Your task to perform on an android device: Open sound settings Image 0: 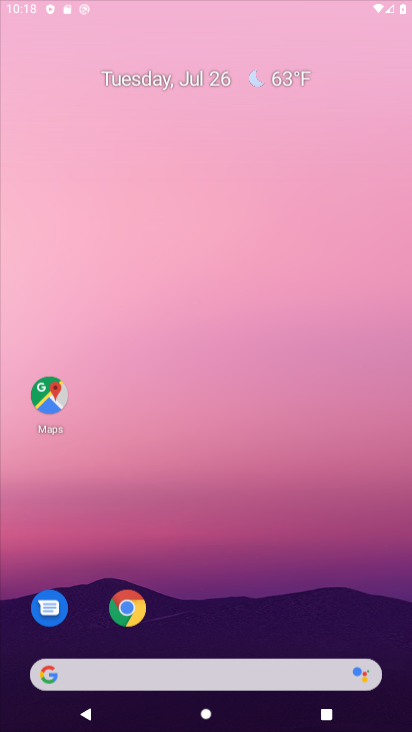
Step 0: press home button
Your task to perform on an android device: Open sound settings Image 1: 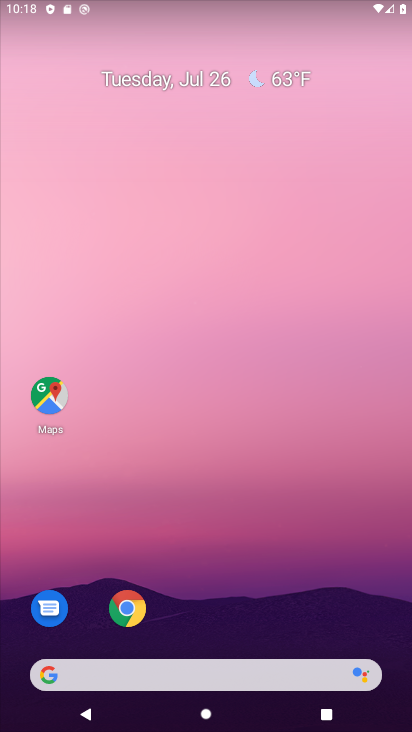
Step 1: press home button
Your task to perform on an android device: Open sound settings Image 2: 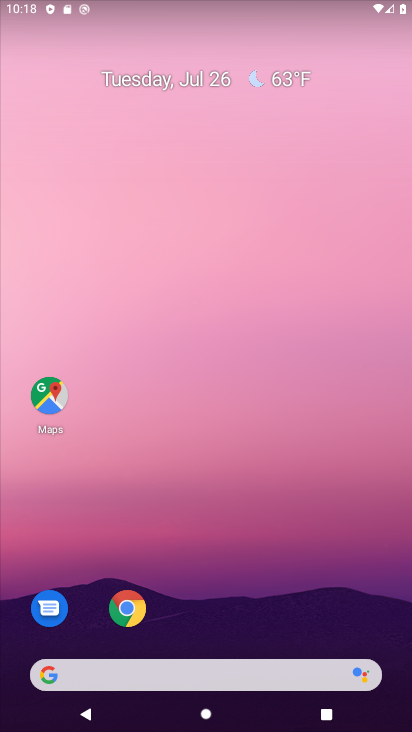
Step 2: drag from (286, 601) to (217, 149)
Your task to perform on an android device: Open sound settings Image 3: 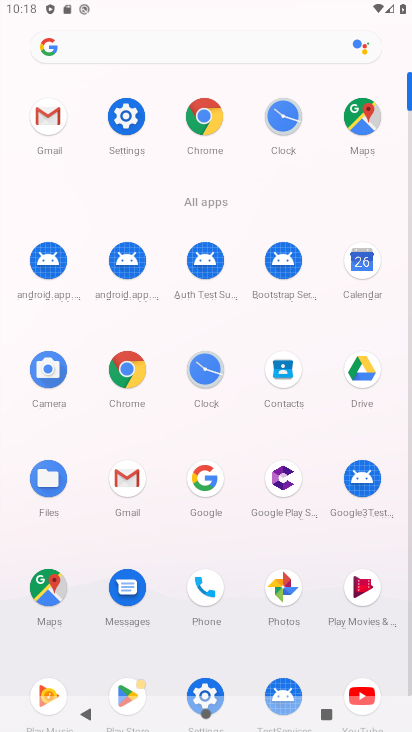
Step 3: click (130, 114)
Your task to perform on an android device: Open sound settings Image 4: 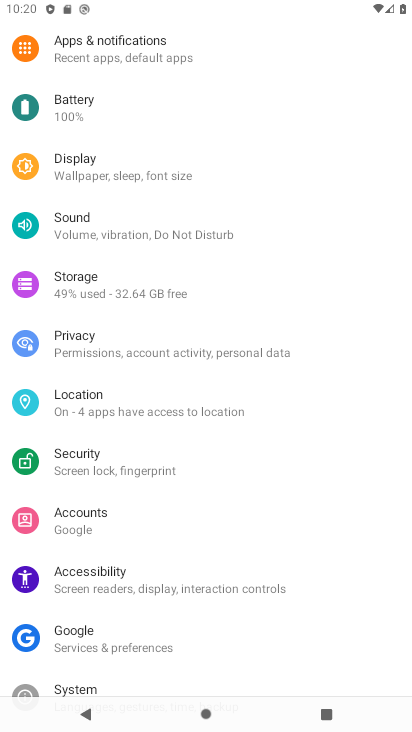
Step 4: press home button
Your task to perform on an android device: Open sound settings Image 5: 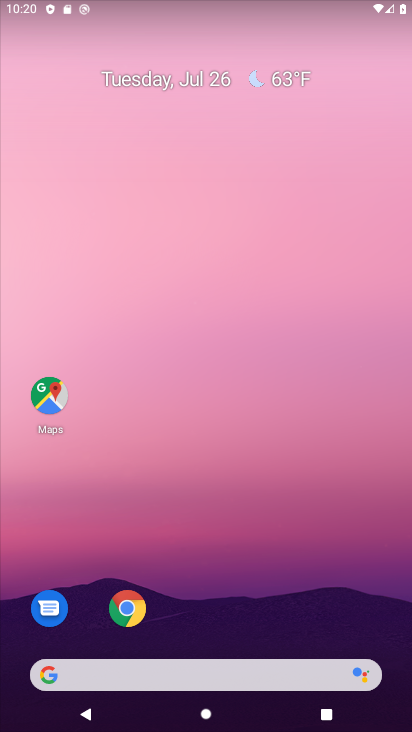
Step 5: drag from (239, 465) to (245, 82)
Your task to perform on an android device: Open sound settings Image 6: 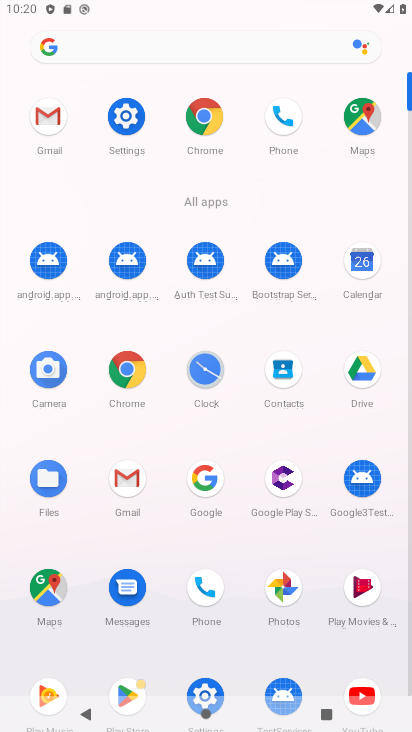
Step 6: click (133, 118)
Your task to perform on an android device: Open sound settings Image 7: 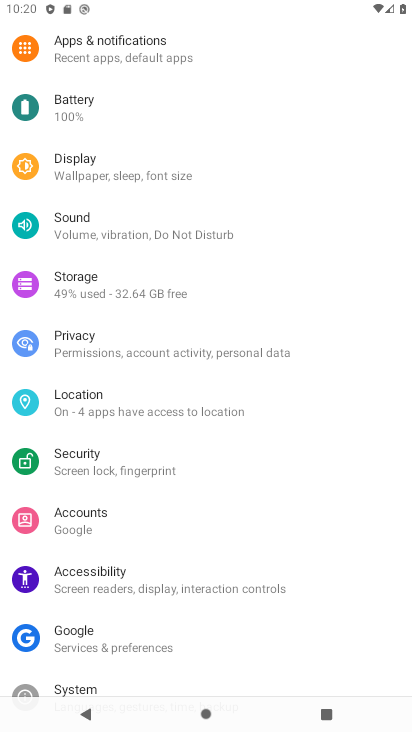
Step 7: click (101, 224)
Your task to perform on an android device: Open sound settings Image 8: 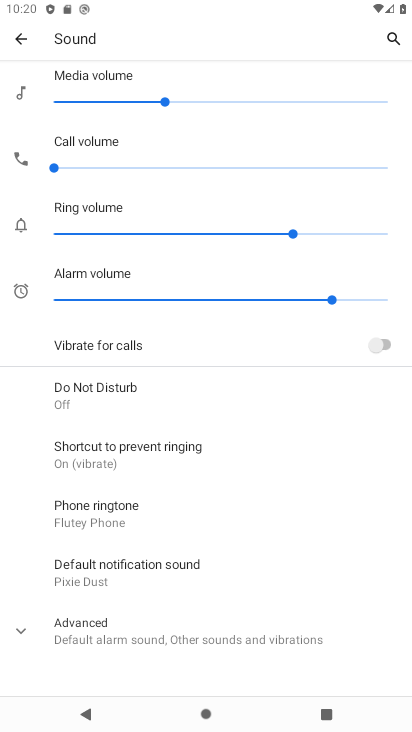
Step 8: task complete